Your task to perform on an android device: Open a new Chrome incognito tab Image 0: 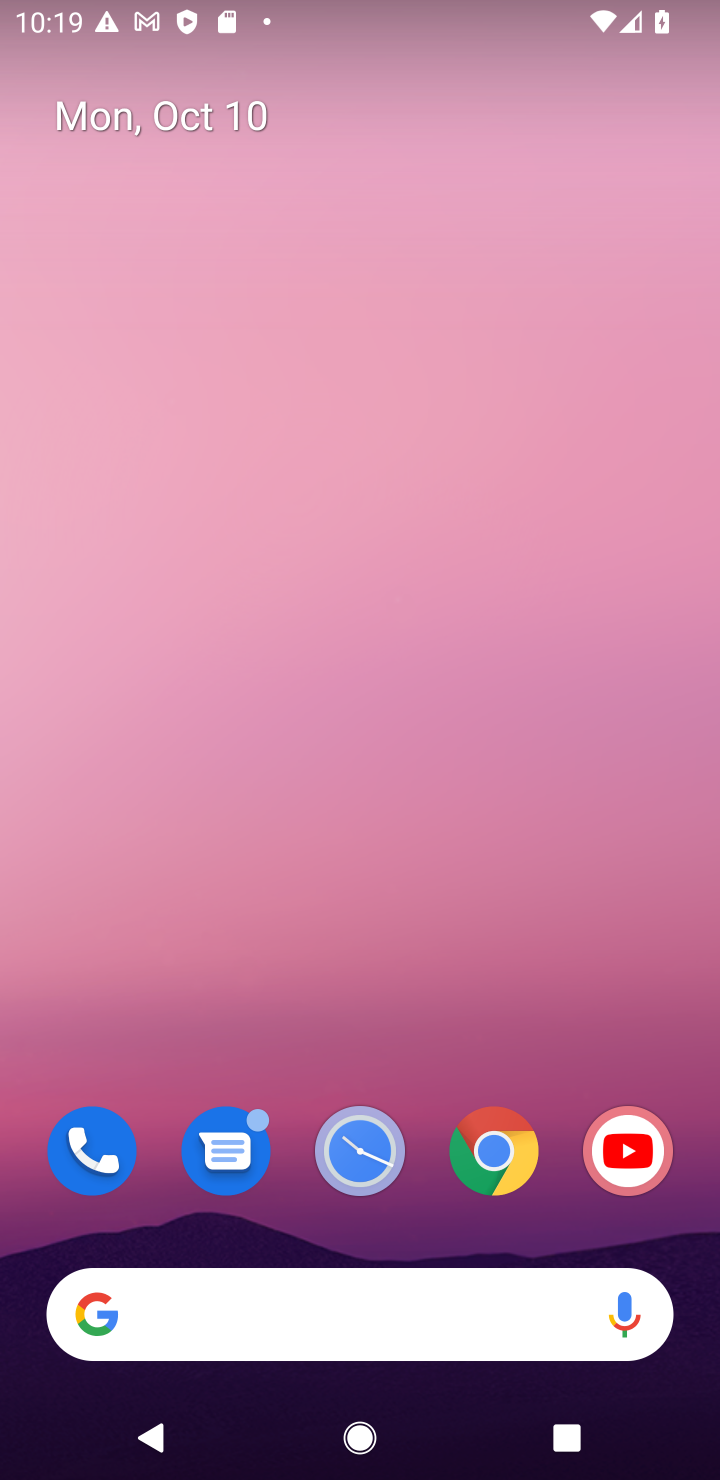
Step 0: click (495, 1170)
Your task to perform on an android device: Open a new Chrome incognito tab Image 1: 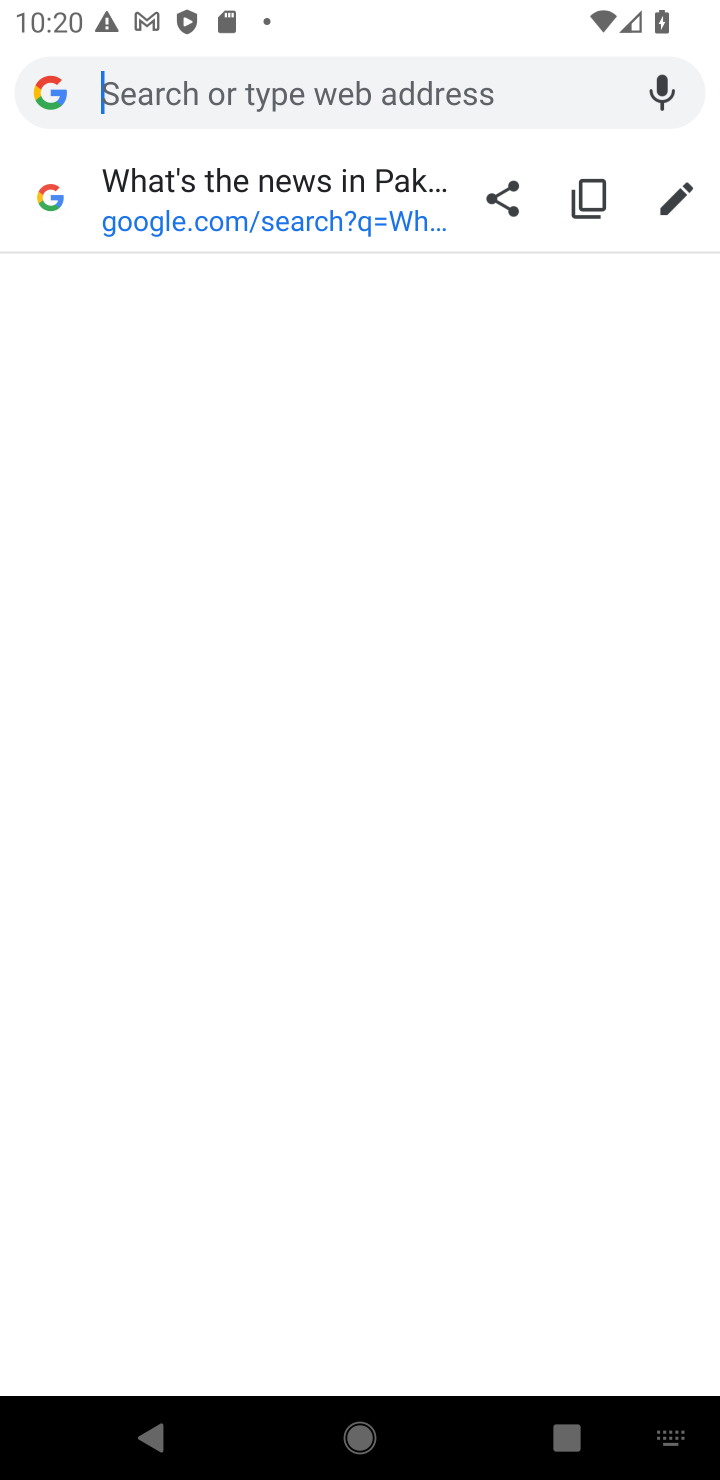
Step 1: press home button
Your task to perform on an android device: Open a new Chrome incognito tab Image 2: 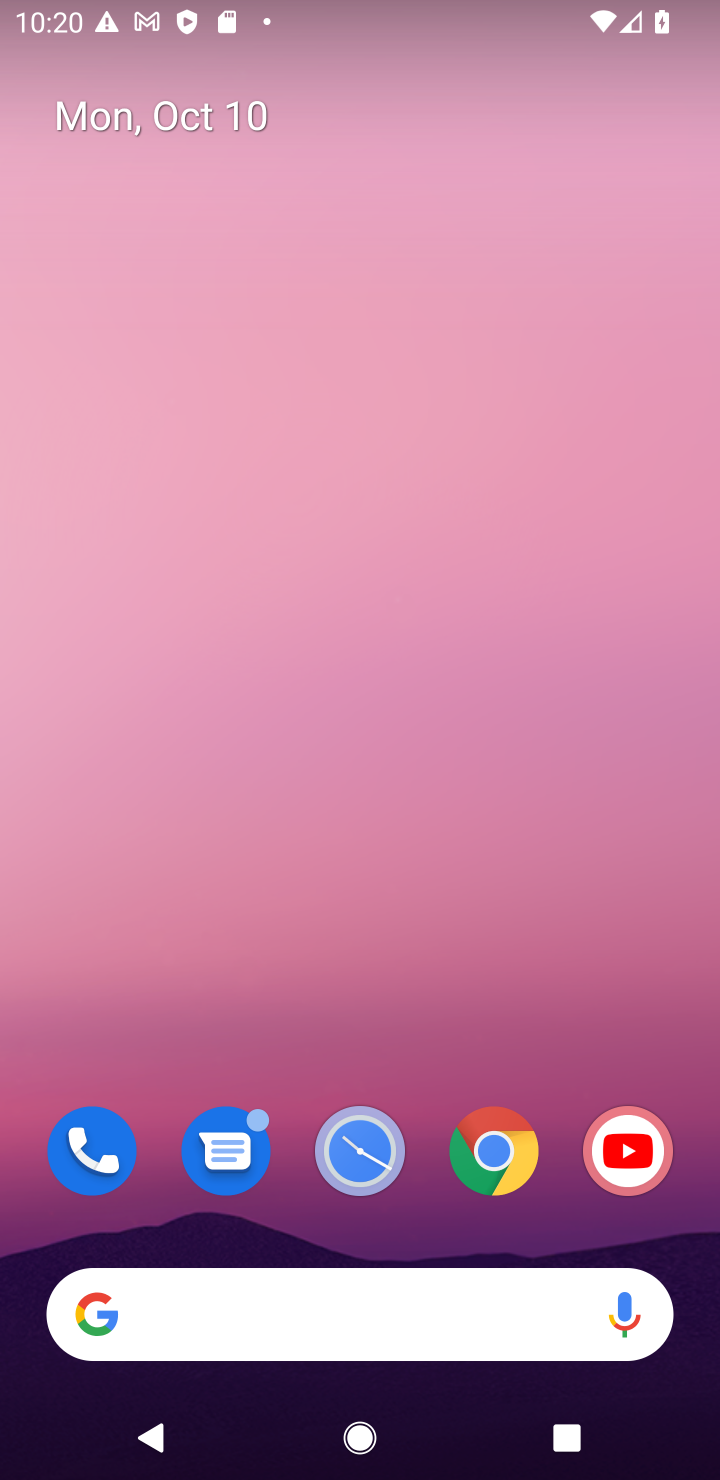
Step 2: click (540, 1170)
Your task to perform on an android device: Open a new Chrome incognito tab Image 3: 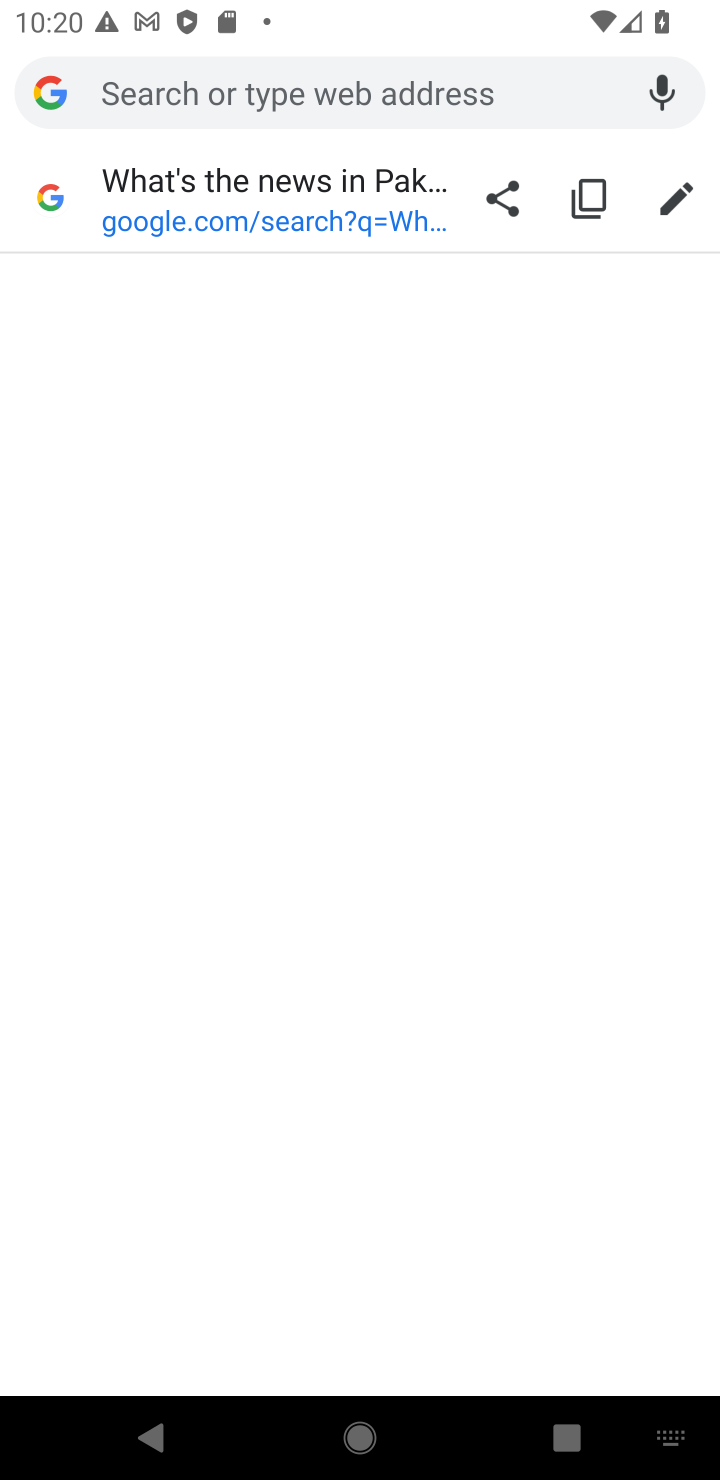
Step 3: click (34, 98)
Your task to perform on an android device: Open a new Chrome incognito tab Image 4: 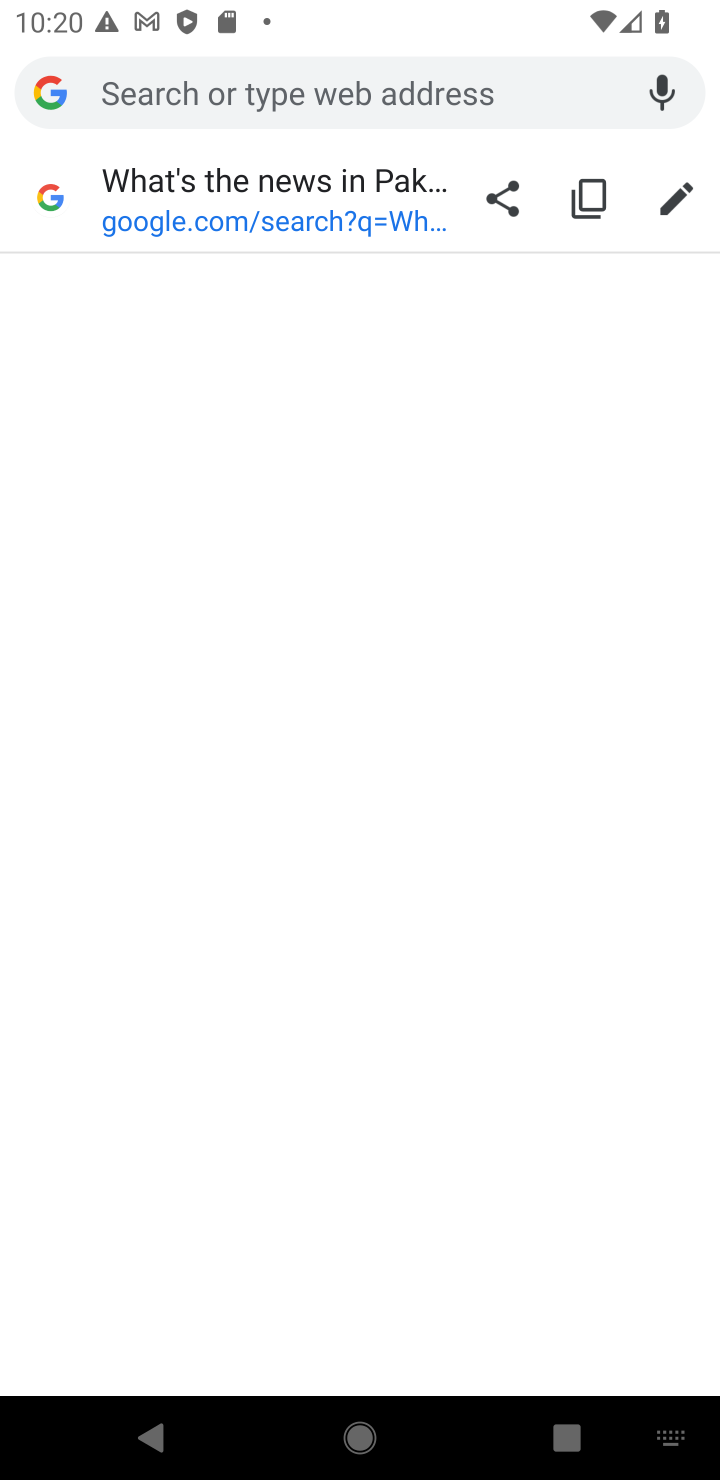
Step 4: click (34, 98)
Your task to perform on an android device: Open a new Chrome incognito tab Image 5: 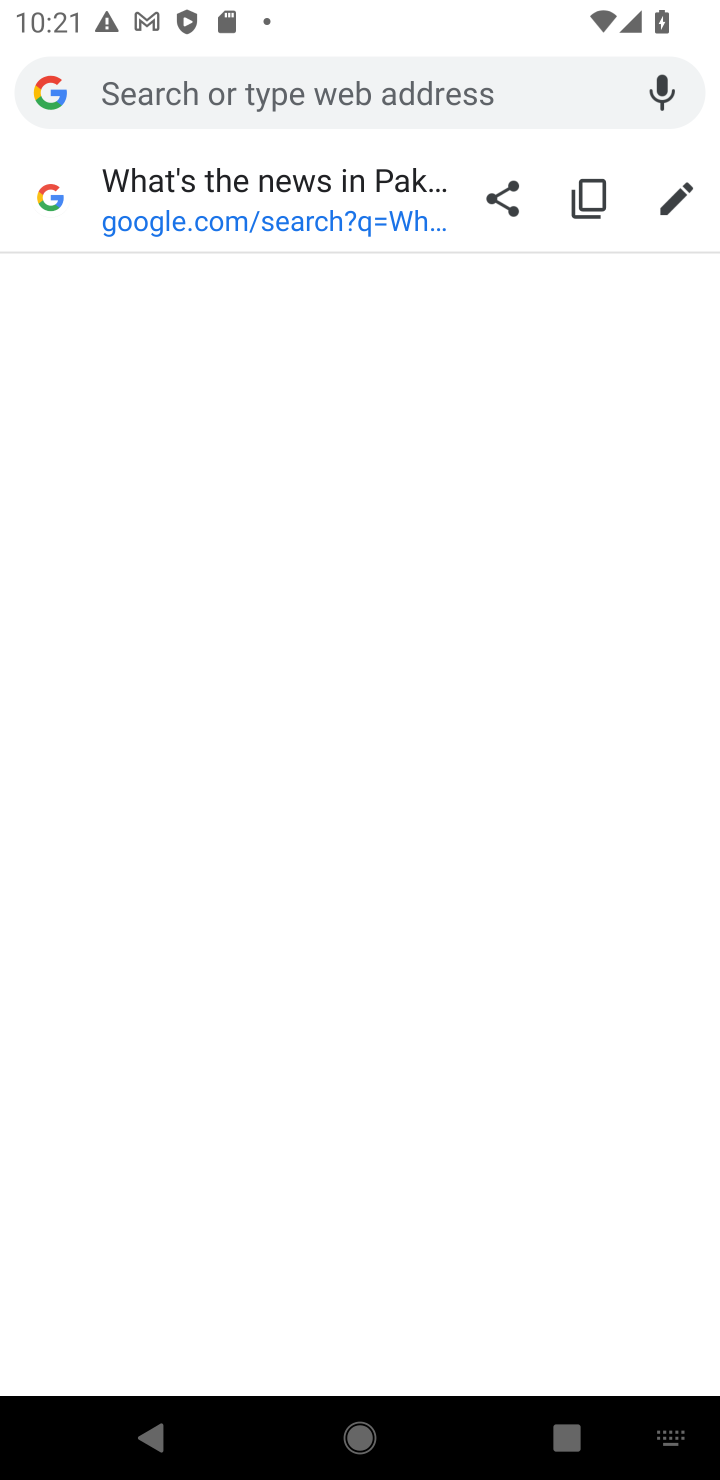
Step 5: click (65, 99)
Your task to perform on an android device: Open a new Chrome incognito tab Image 6: 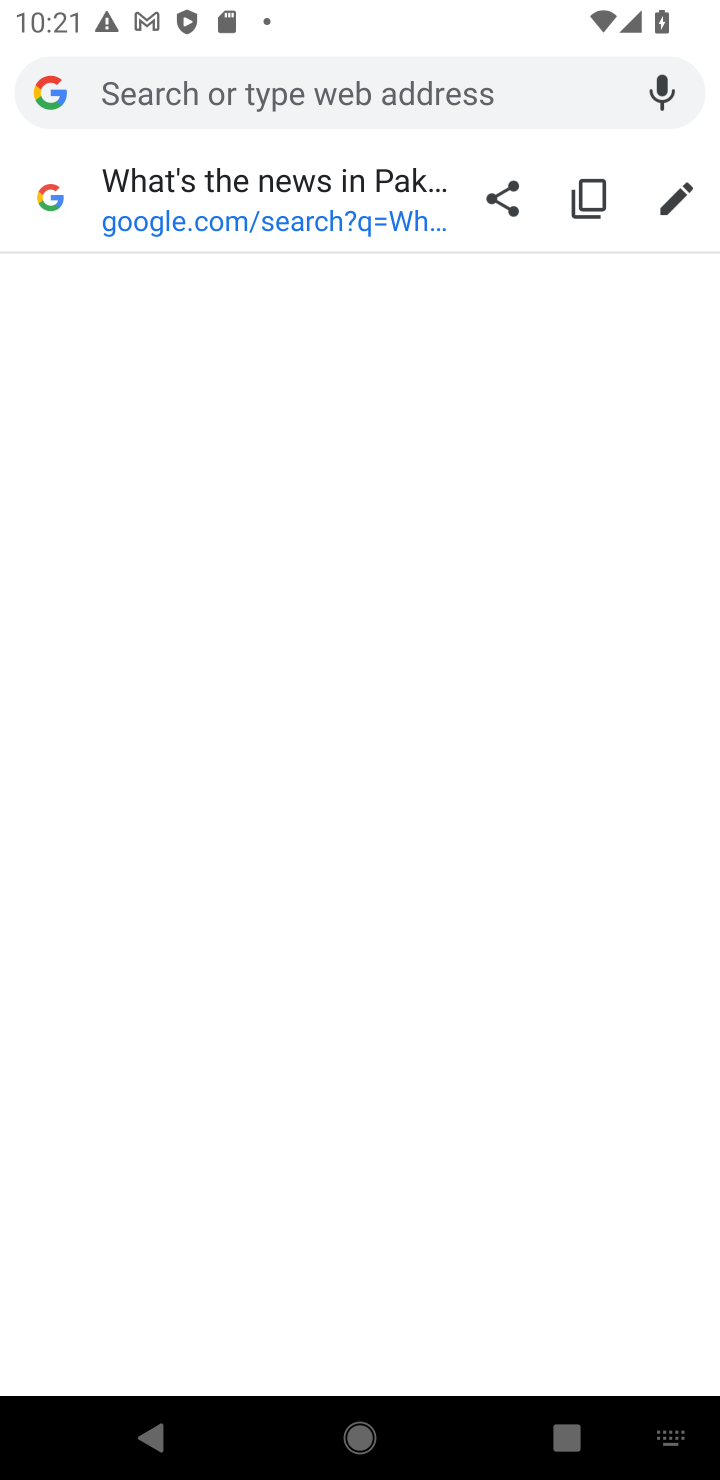
Step 6: click (43, 99)
Your task to perform on an android device: Open a new Chrome incognito tab Image 7: 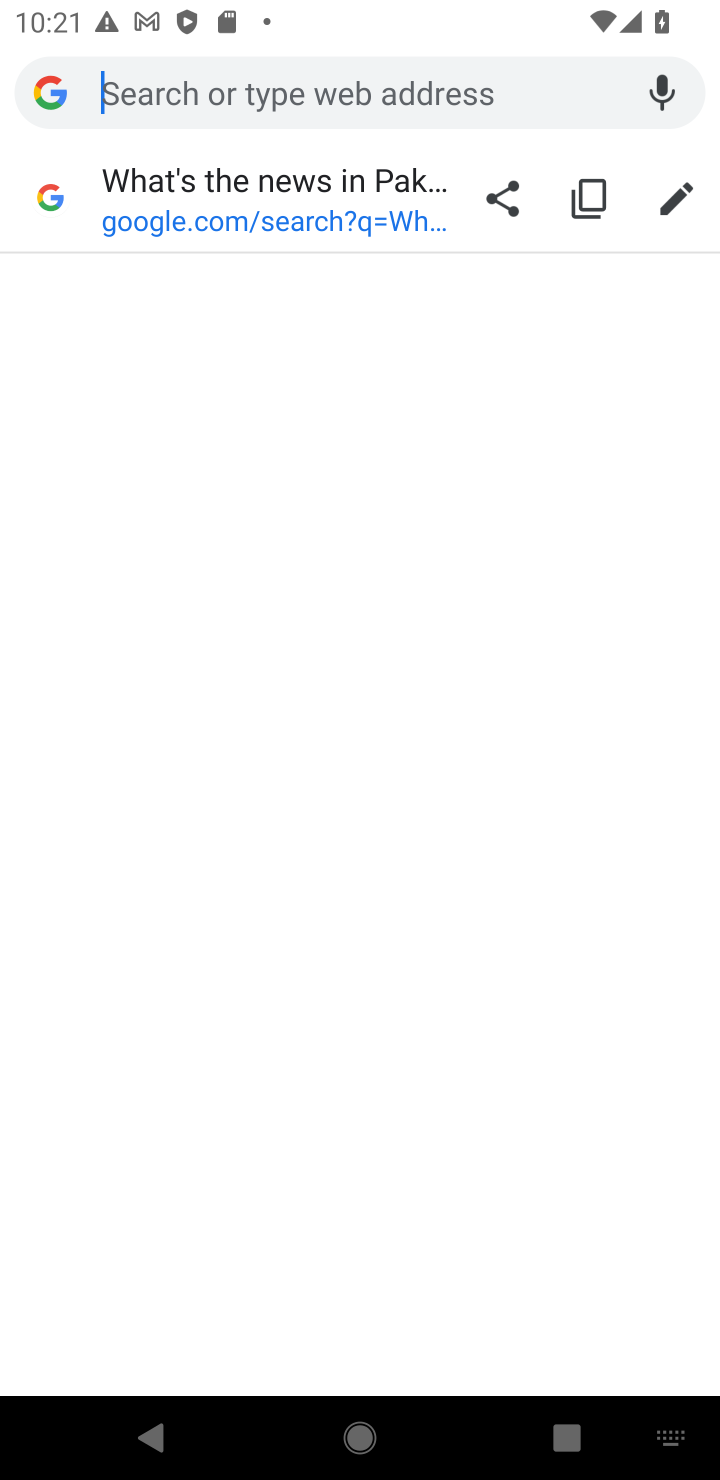
Step 7: press back button
Your task to perform on an android device: Open a new Chrome incognito tab Image 8: 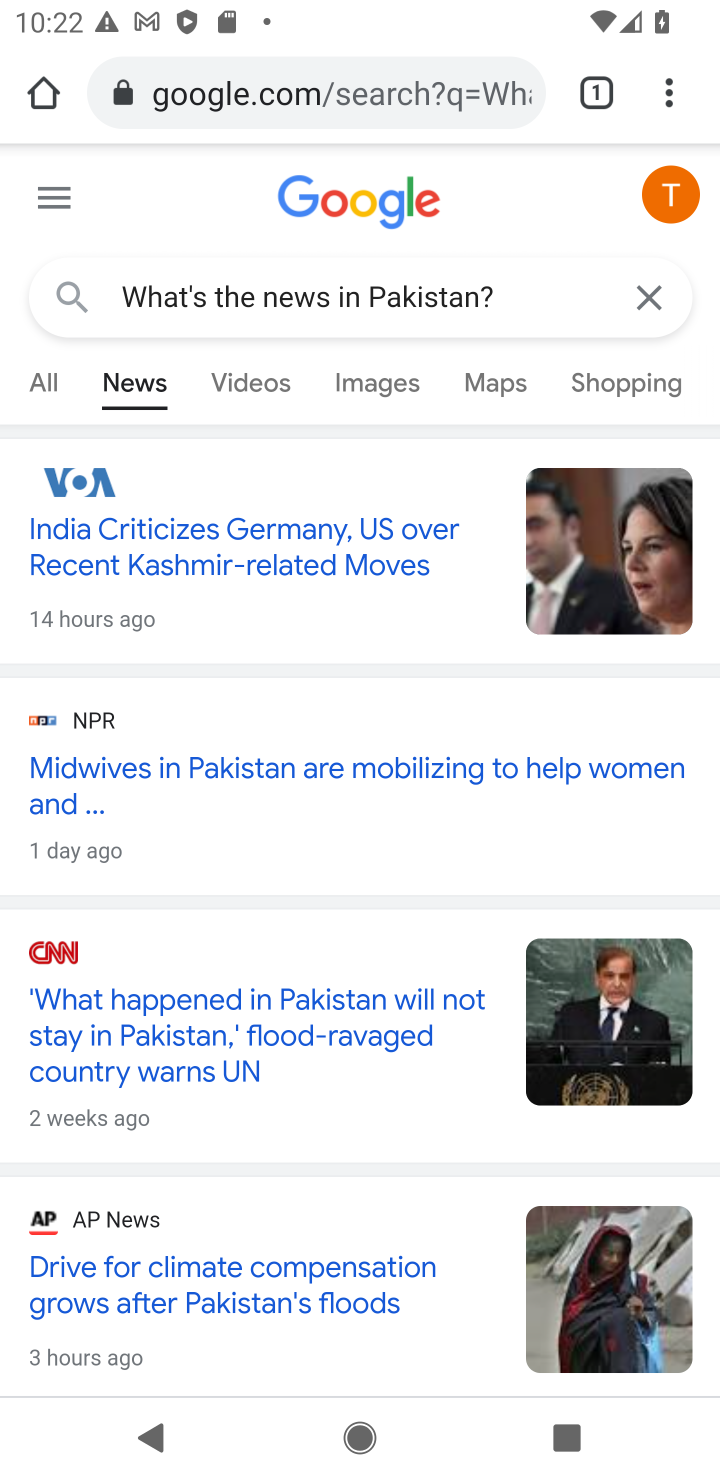
Step 8: click (658, 75)
Your task to perform on an android device: Open a new Chrome incognito tab Image 9: 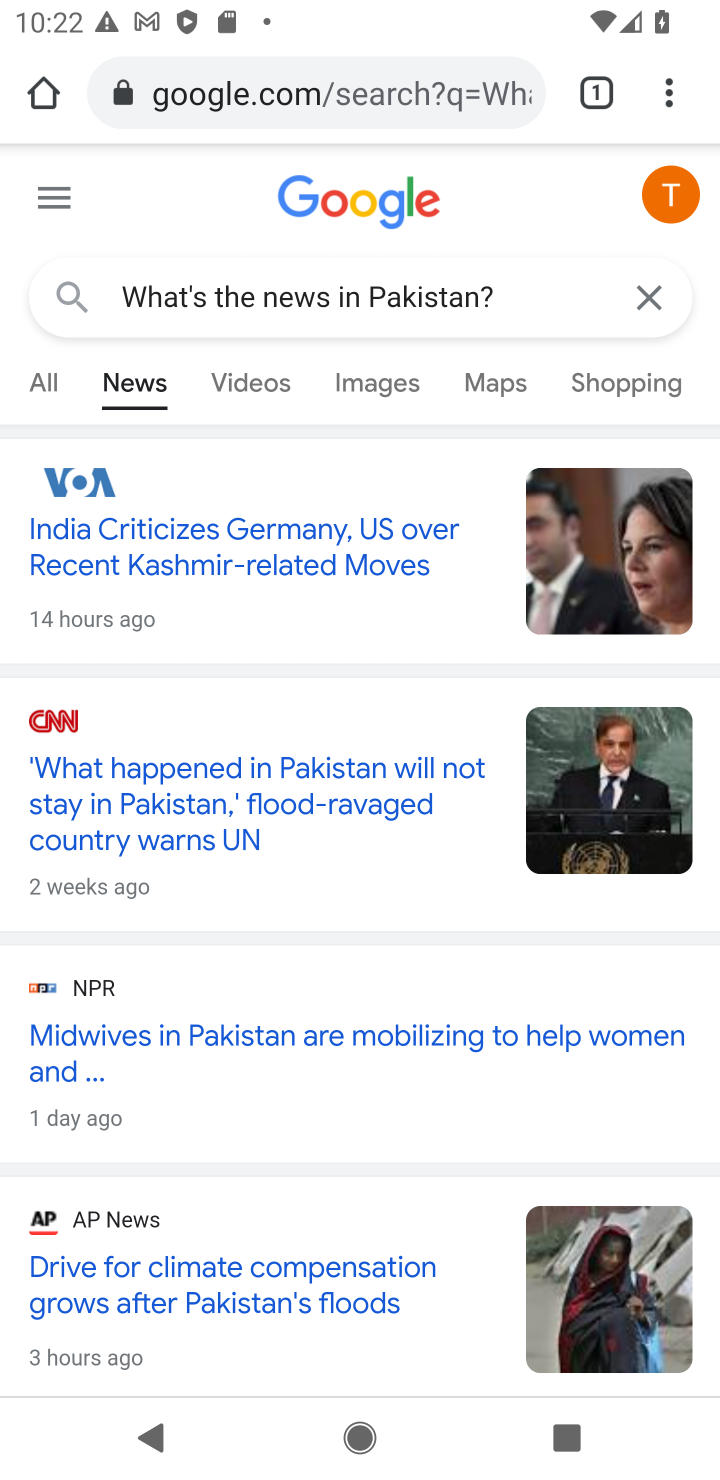
Step 9: click (653, 86)
Your task to perform on an android device: Open a new Chrome incognito tab Image 10: 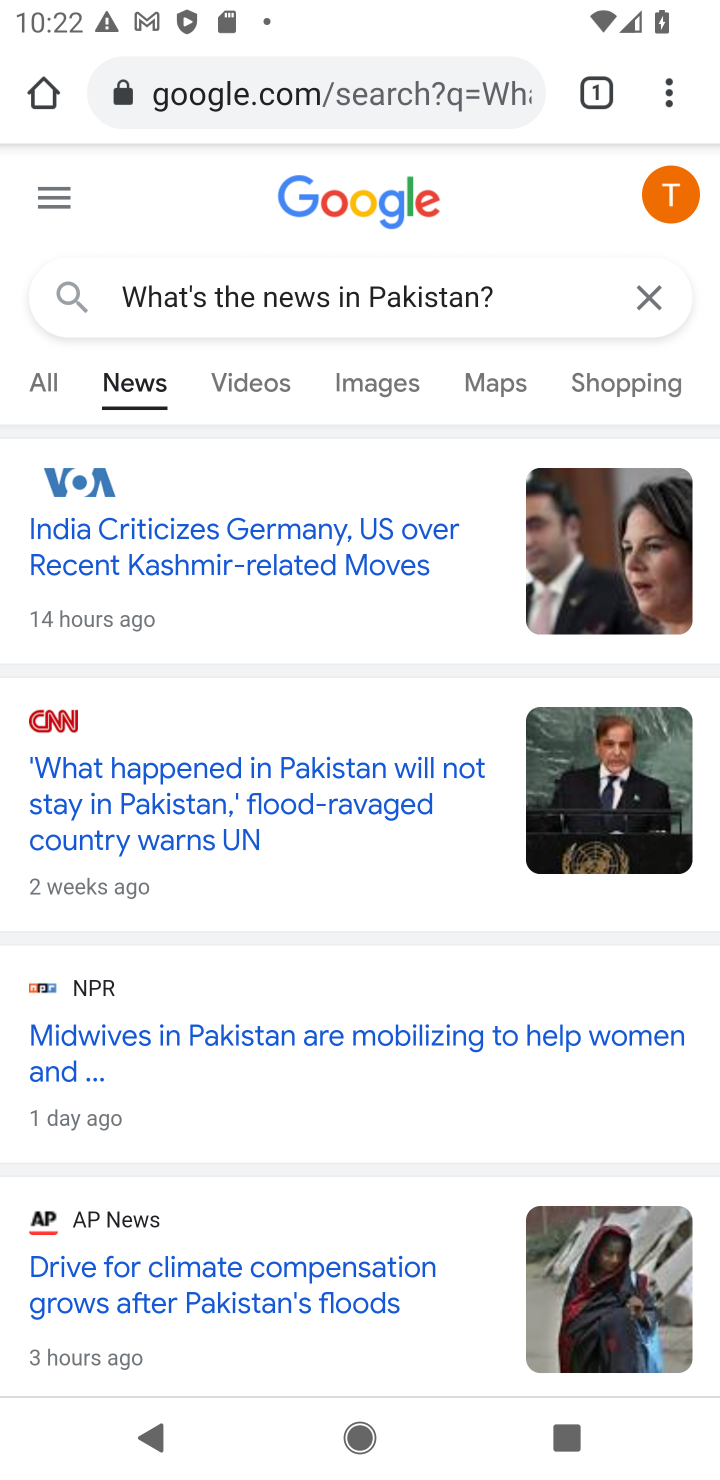
Step 10: click (653, 86)
Your task to perform on an android device: Open a new Chrome incognito tab Image 11: 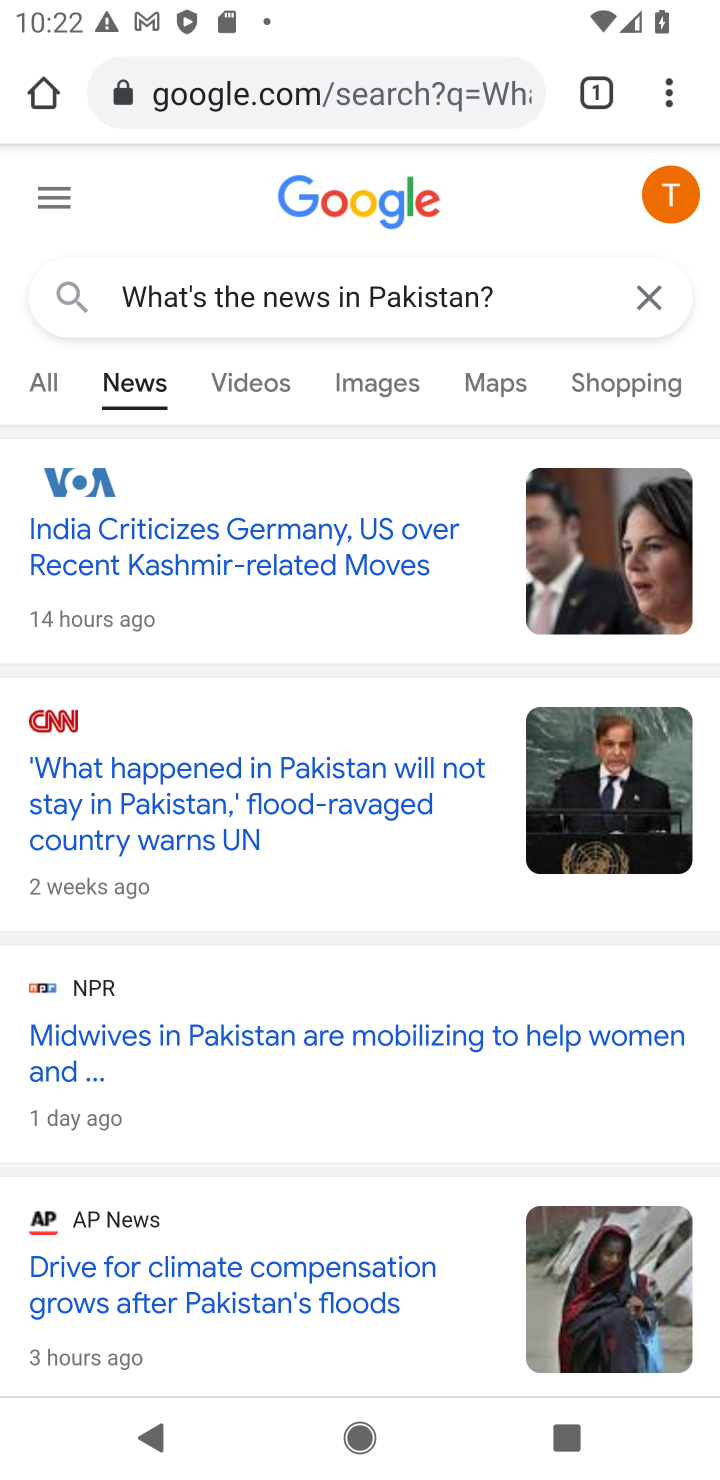
Step 11: click (664, 114)
Your task to perform on an android device: Open a new Chrome incognito tab Image 12: 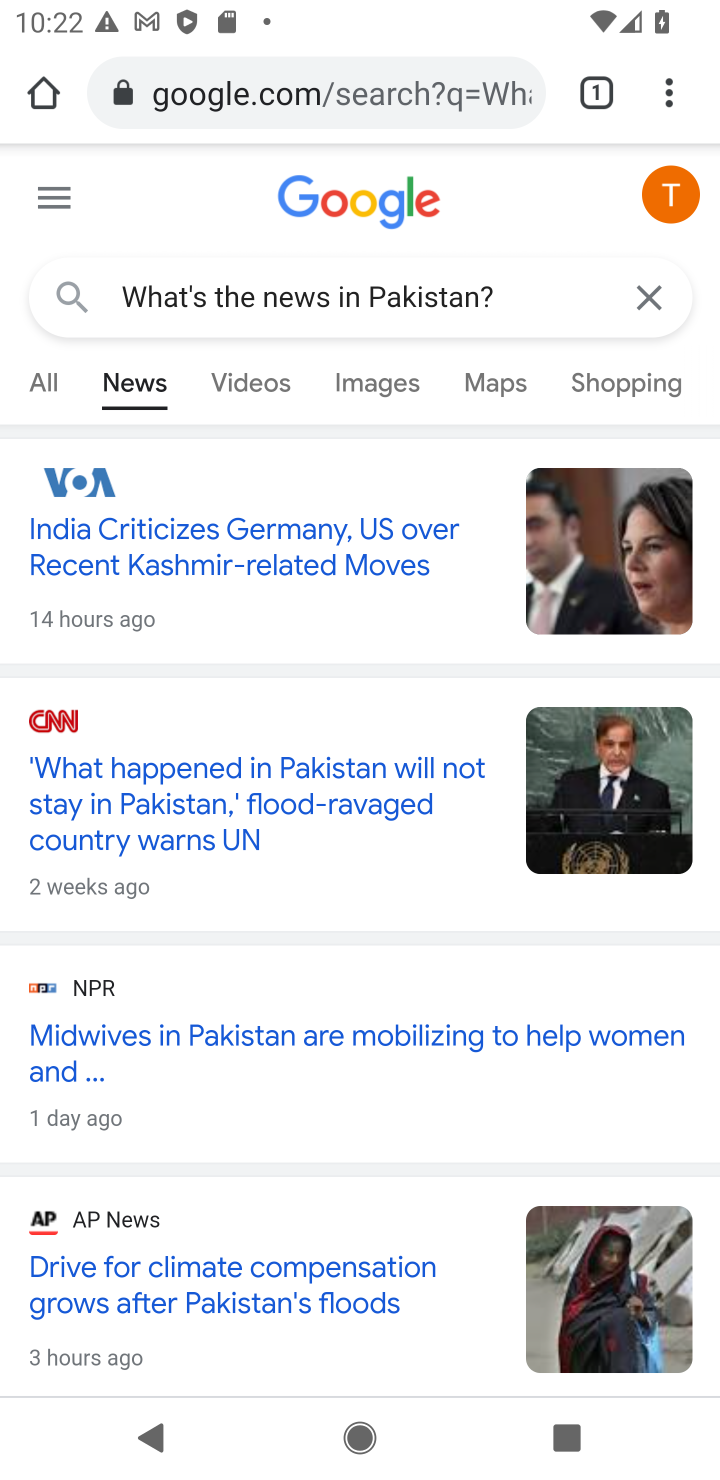
Step 12: click (660, 120)
Your task to perform on an android device: Open a new Chrome incognito tab Image 13: 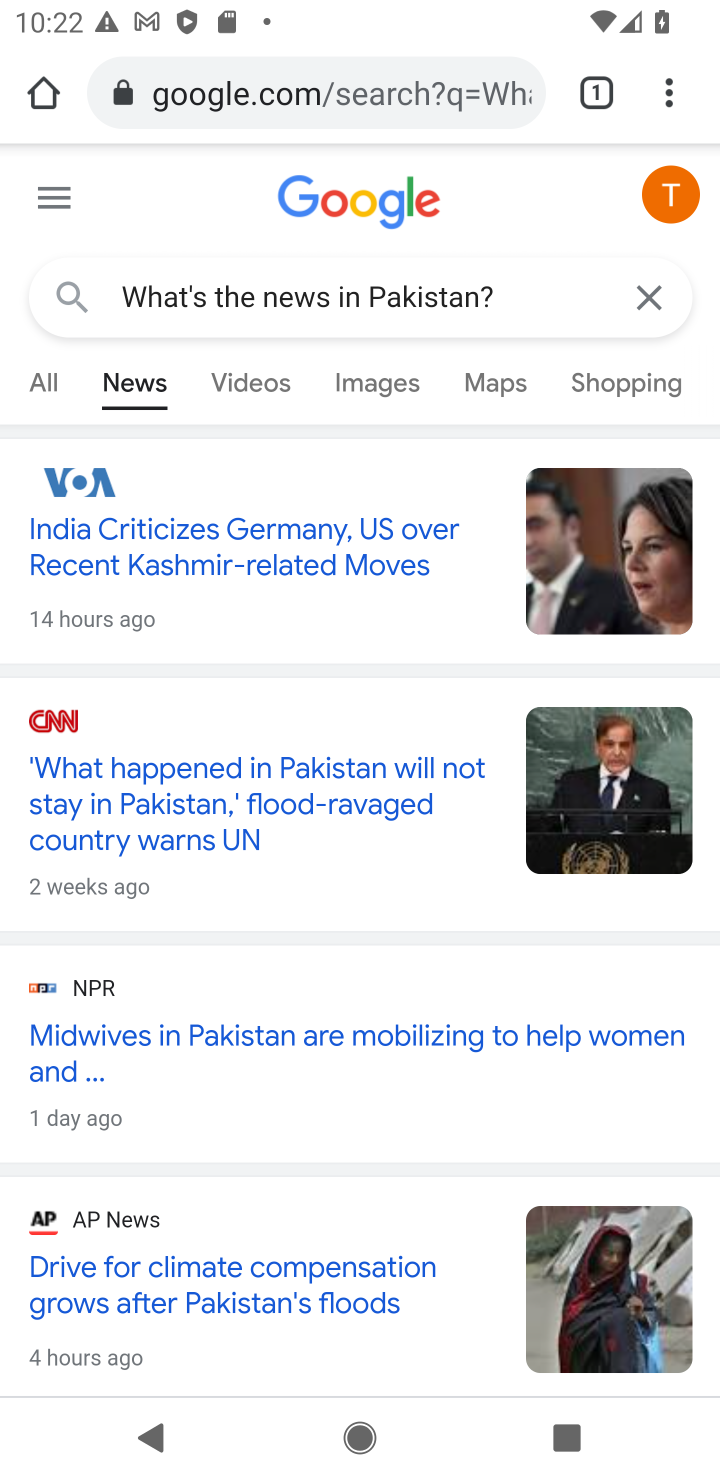
Step 13: click (649, 111)
Your task to perform on an android device: Open a new Chrome incognito tab Image 14: 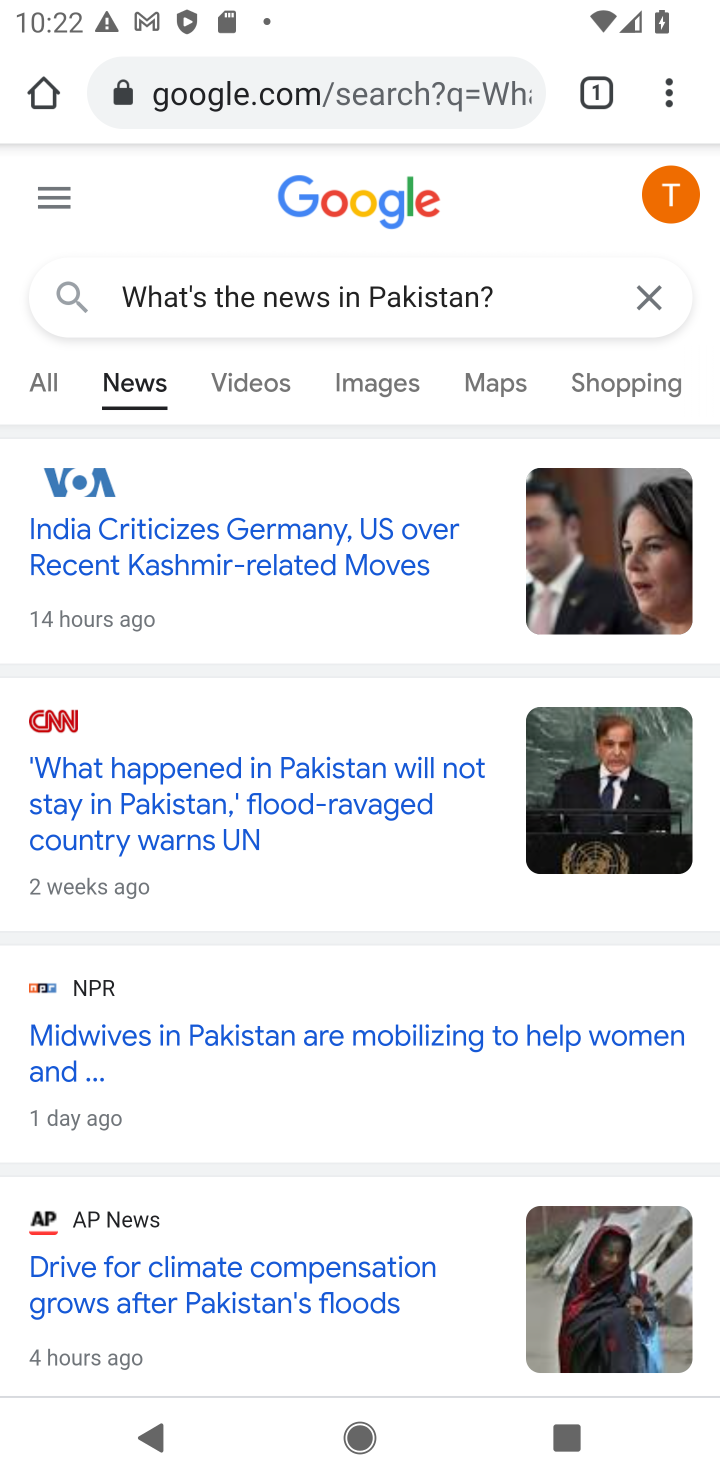
Step 14: click (649, 115)
Your task to perform on an android device: Open a new Chrome incognito tab Image 15: 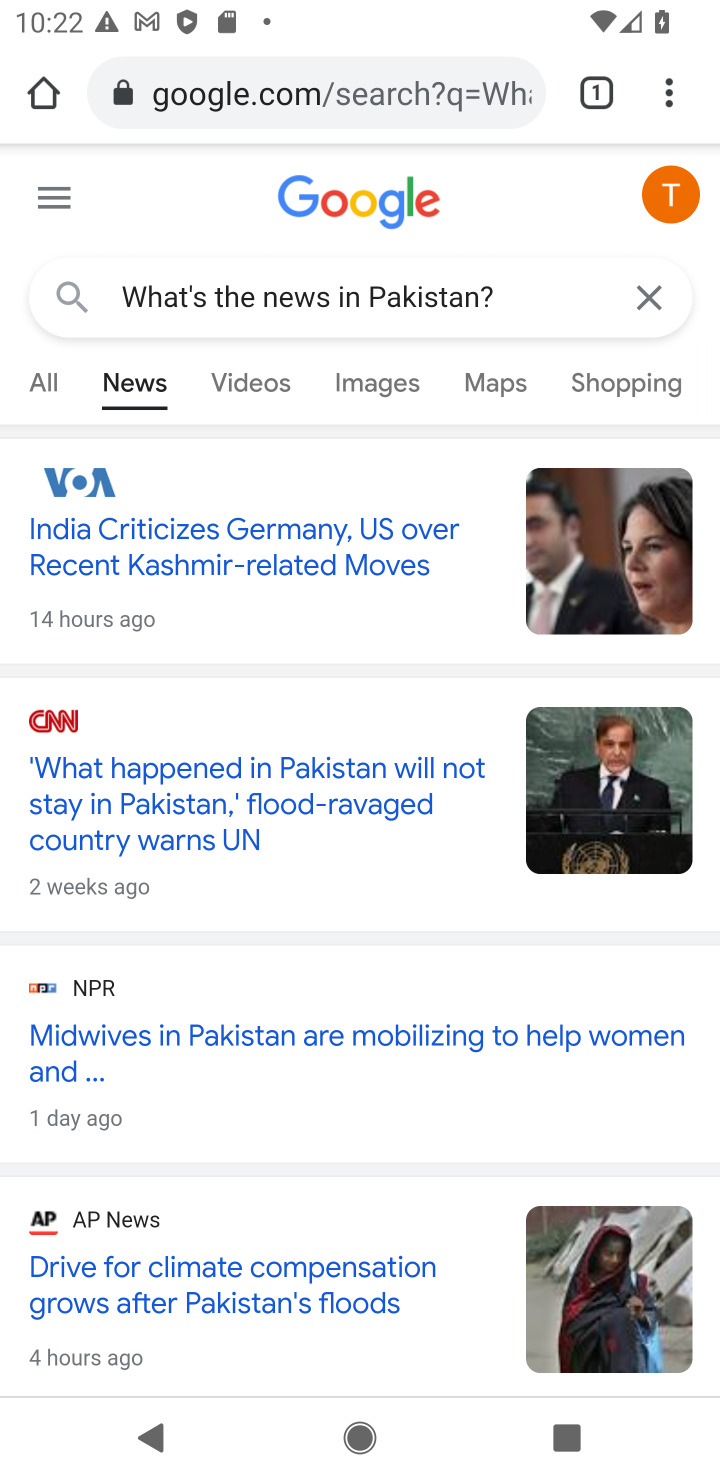
Step 15: click (648, 93)
Your task to perform on an android device: Open a new Chrome incognito tab Image 16: 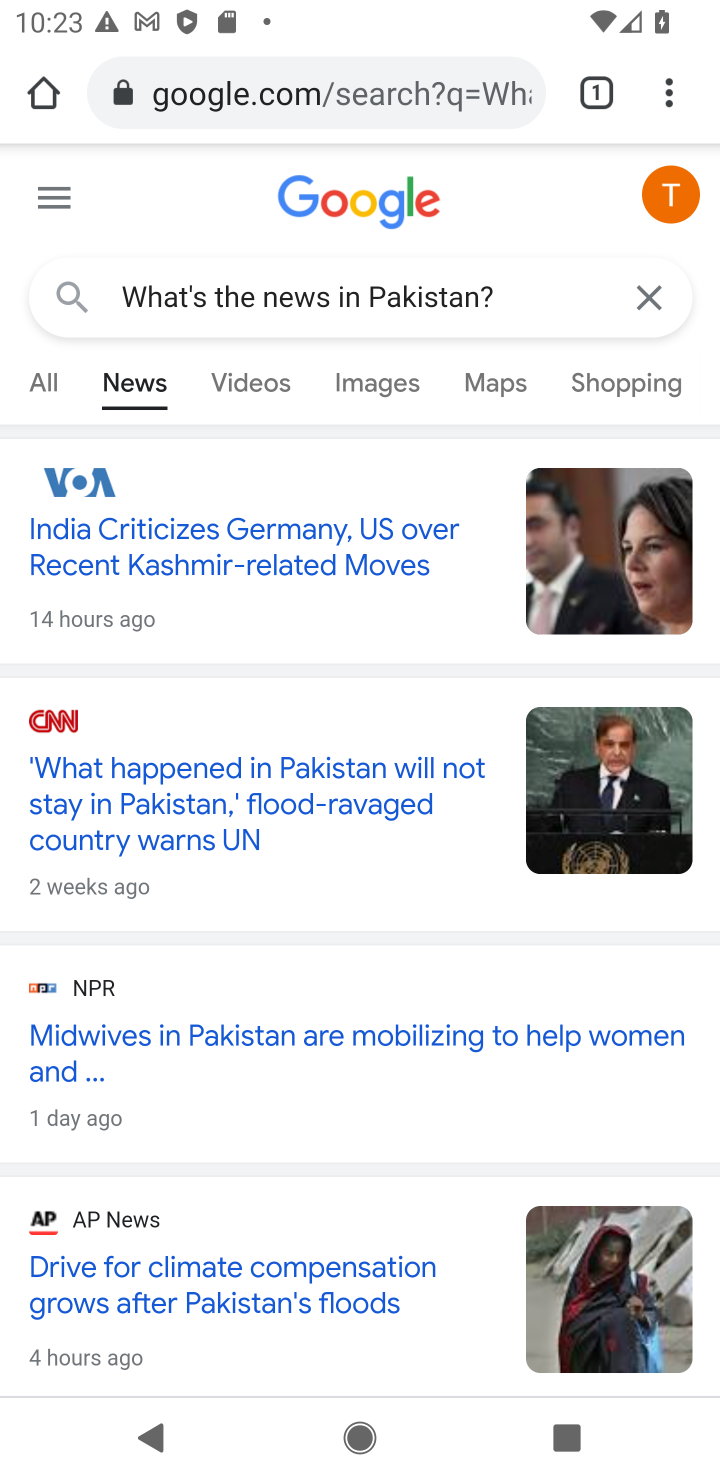
Step 16: click (662, 89)
Your task to perform on an android device: Open a new Chrome incognito tab Image 17: 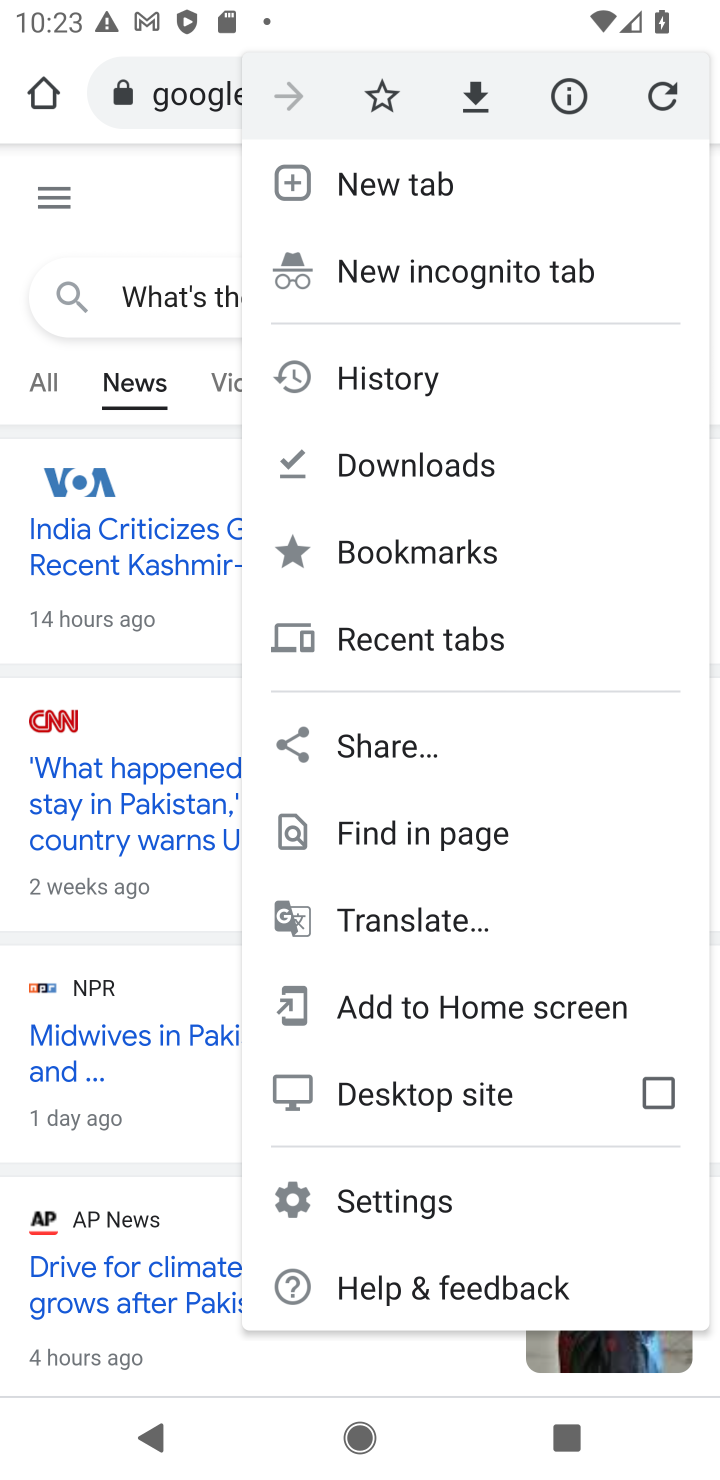
Step 17: click (343, 266)
Your task to perform on an android device: Open a new Chrome incognito tab Image 18: 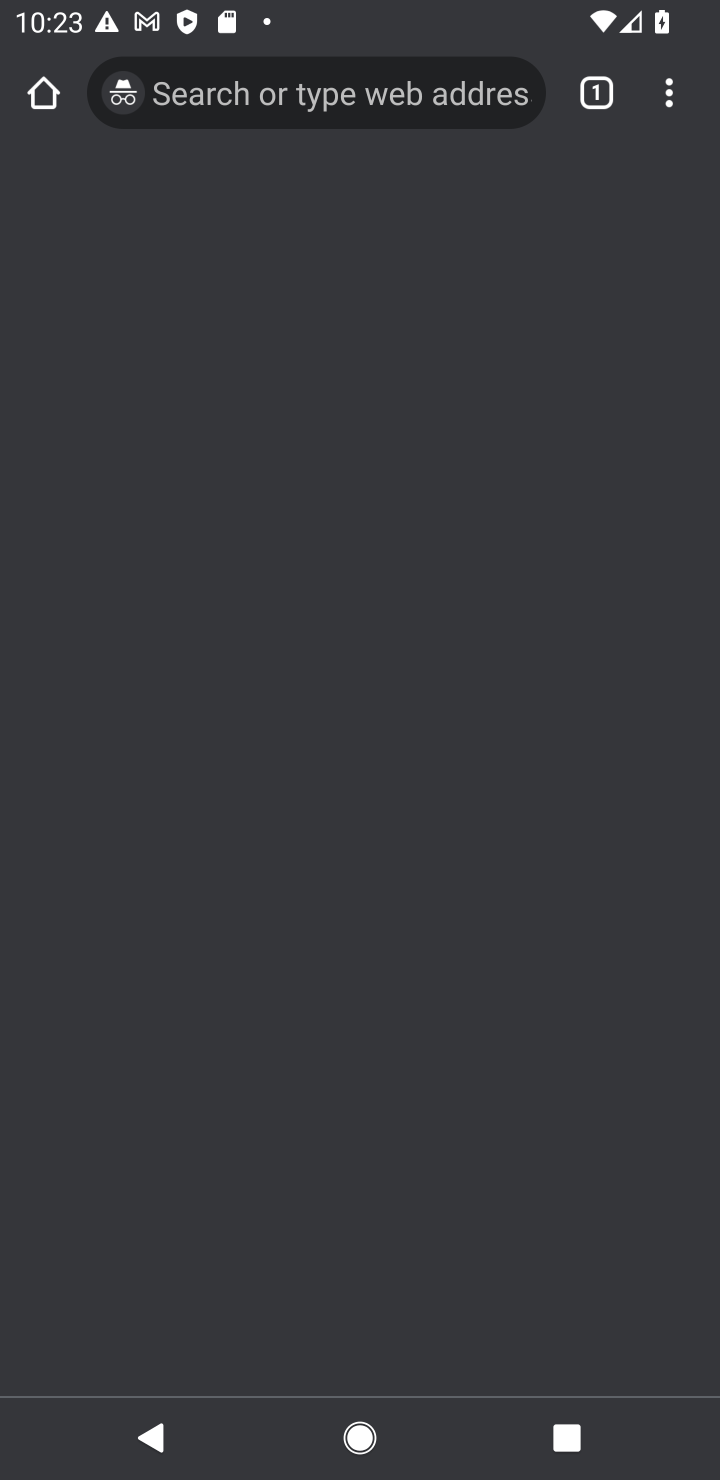
Step 18: click (343, 266)
Your task to perform on an android device: Open a new Chrome incognito tab Image 19: 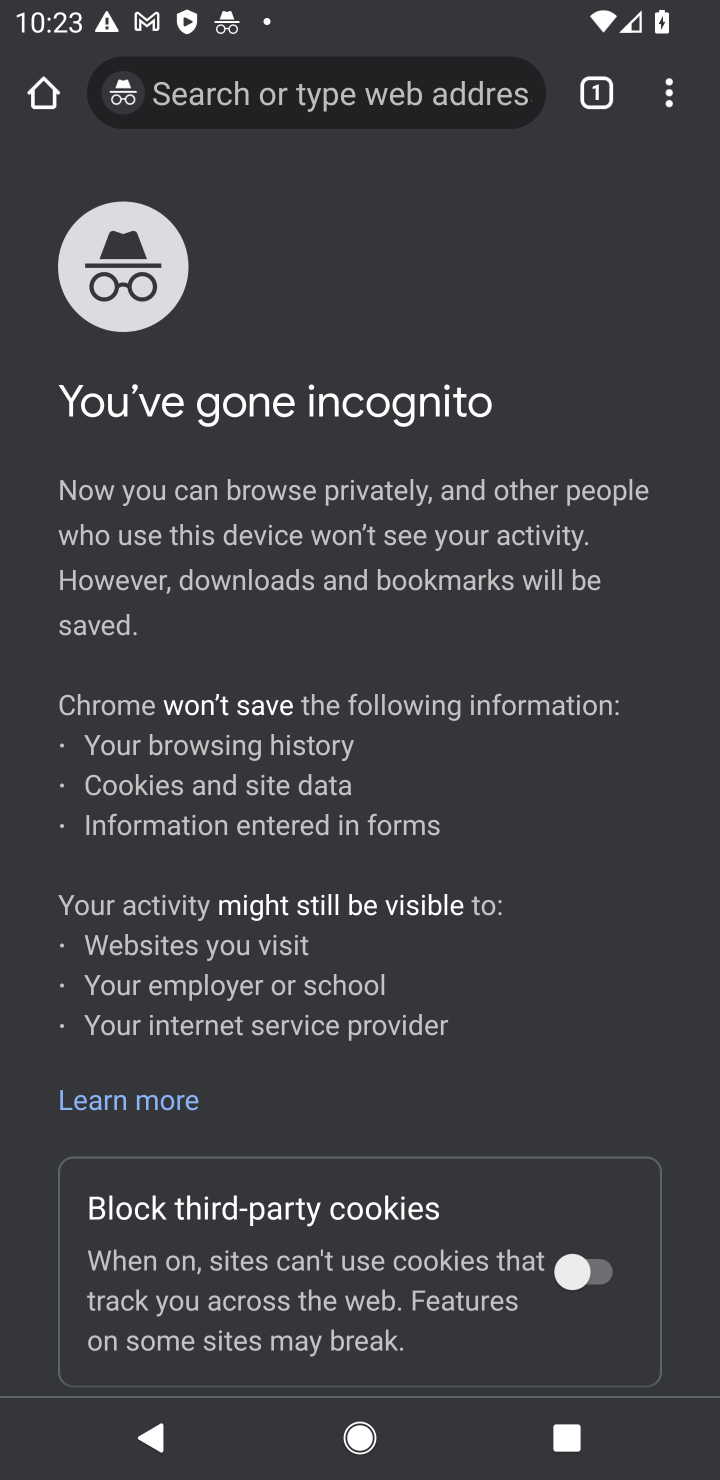
Step 19: task complete